Your task to perform on an android device: Do I have any events today? Image 0: 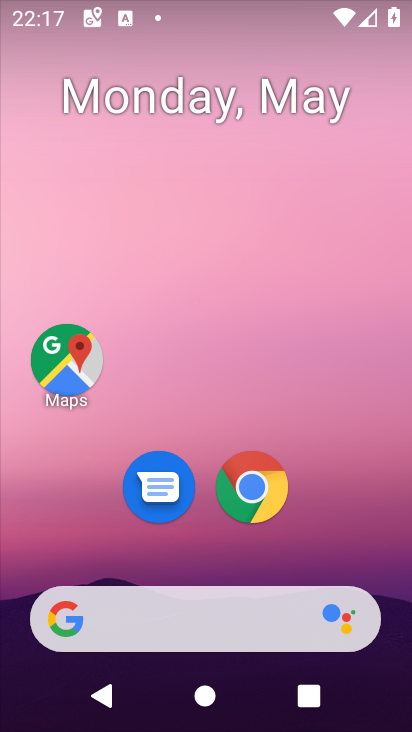
Step 0: click (229, 90)
Your task to perform on an android device: Do I have any events today? Image 1: 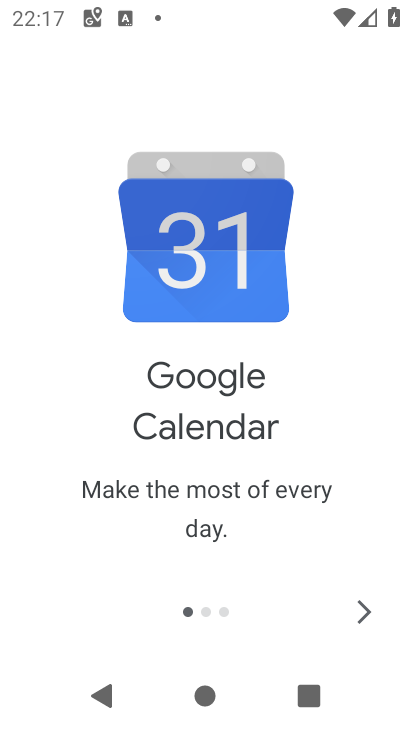
Step 1: click (363, 631)
Your task to perform on an android device: Do I have any events today? Image 2: 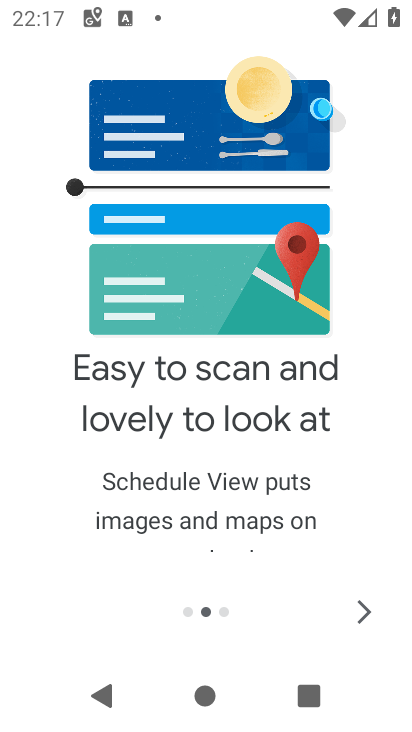
Step 2: click (363, 631)
Your task to perform on an android device: Do I have any events today? Image 3: 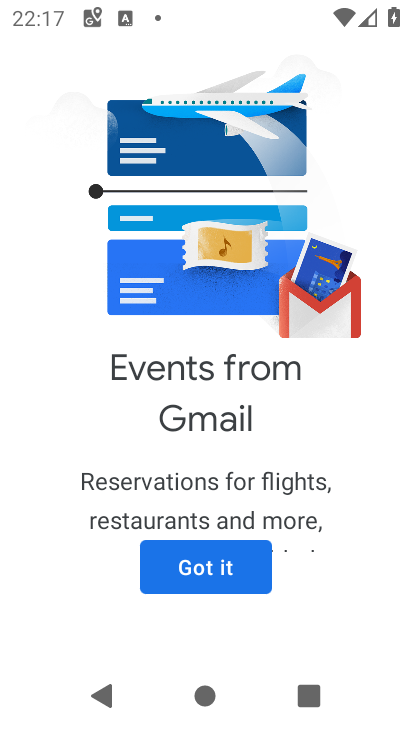
Step 3: click (363, 631)
Your task to perform on an android device: Do I have any events today? Image 4: 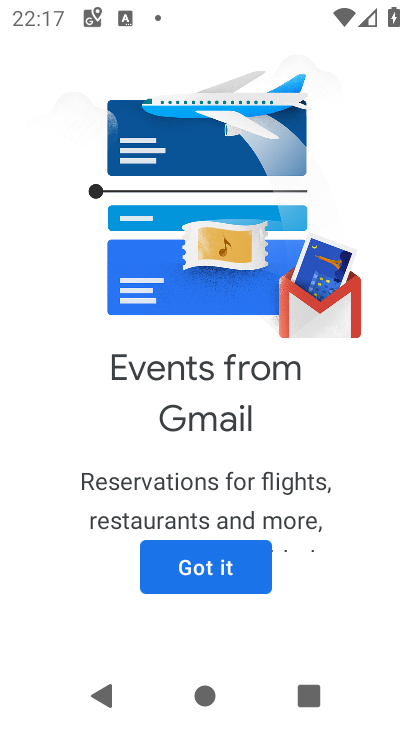
Step 4: click (230, 580)
Your task to perform on an android device: Do I have any events today? Image 5: 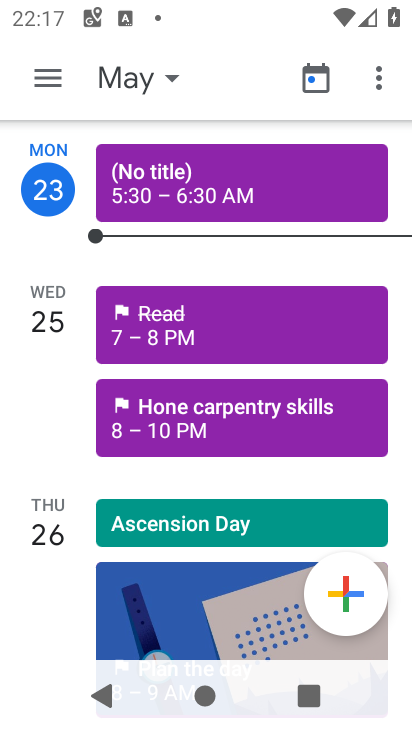
Step 5: click (178, 187)
Your task to perform on an android device: Do I have any events today? Image 6: 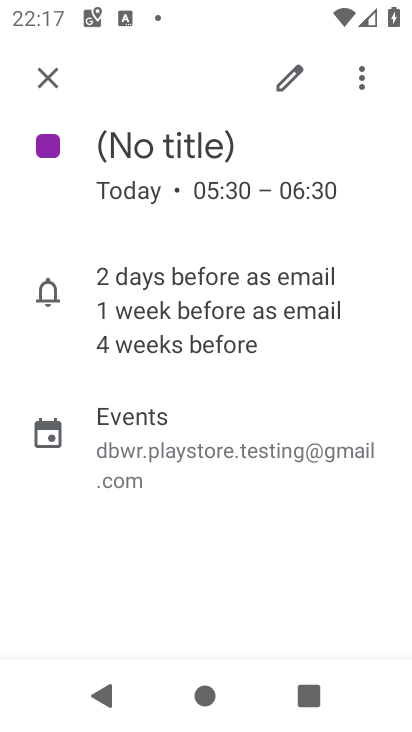
Step 6: task complete